Your task to perform on an android device: Is it going to rain tomorrow? Image 0: 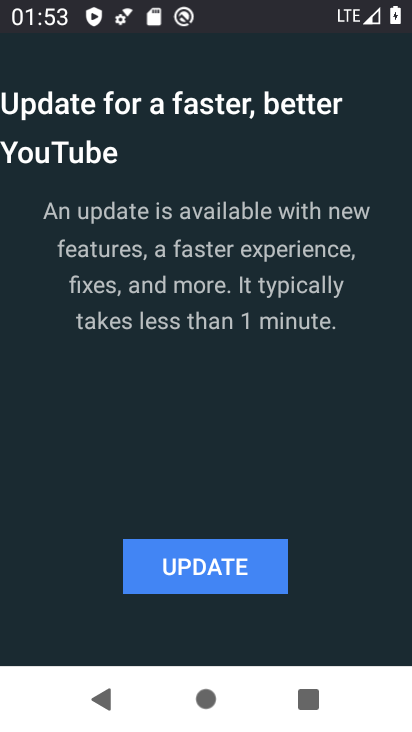
Step 0: press home button
Your task to perform on an android device: Is it going to rain tomorrow? Image 1: 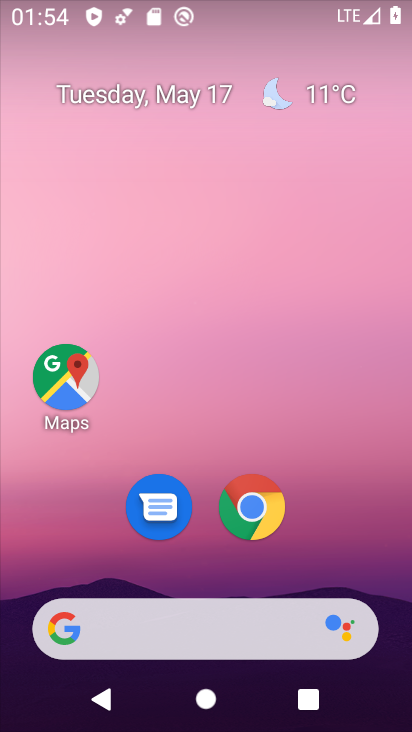
Step 1: click (336, 104)
Your task to perform on an android device: Is it going to rain tomorrow? Image 2: 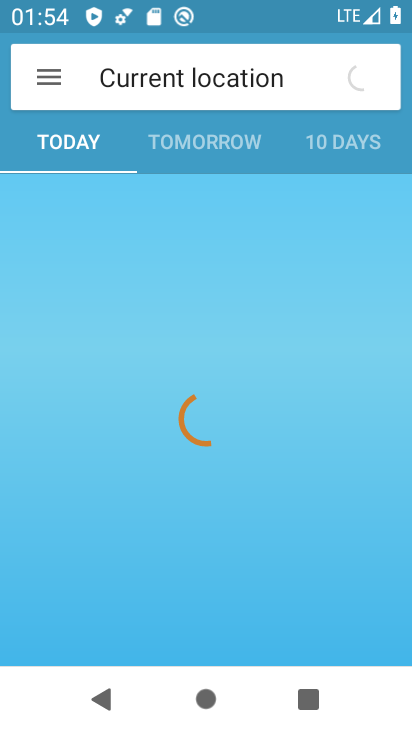
Step 2: click (220, 160)
Your task to perform on an android device: Is it going to rain tomorrow? Image 3: 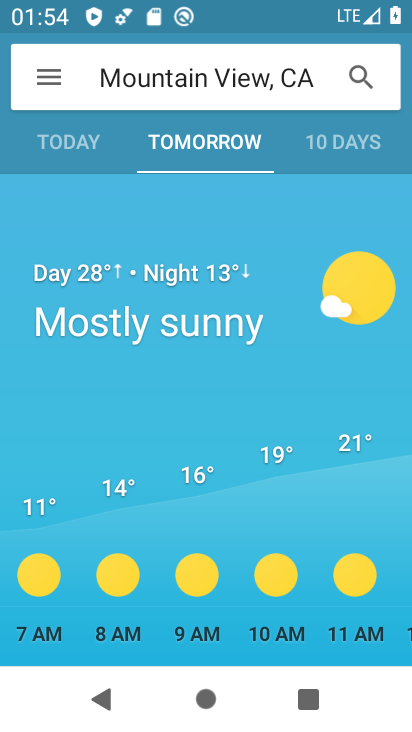
Step 3: task complete